Your task to perform on an android device: What's on my calendar today? Image 0: 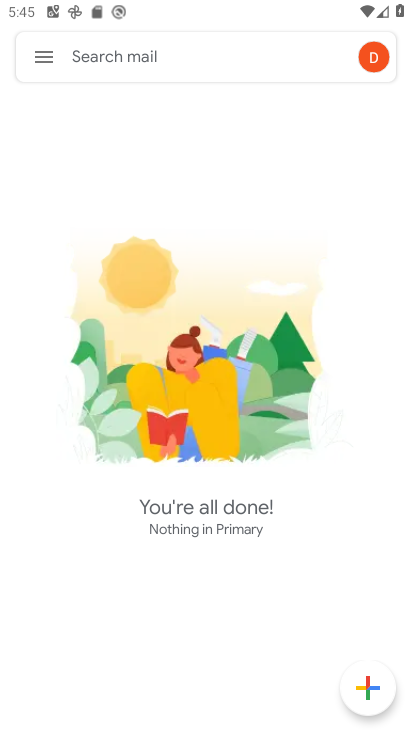
Step 0: press home button
Your task to perform on an android device: What's on my calendar today? Image 1: 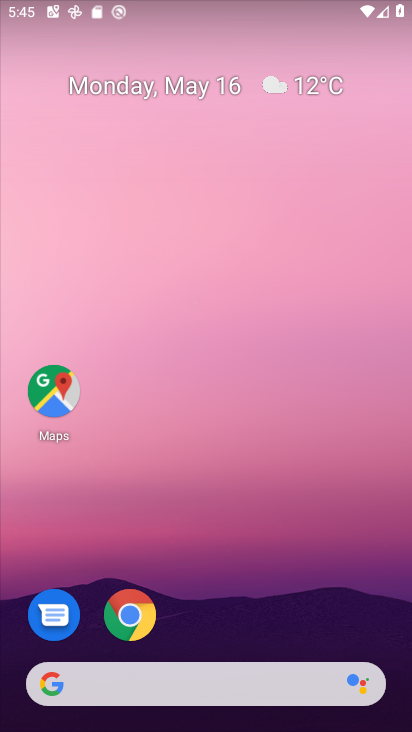
Step 1: drag from (248, 596) to (310, 76)
Your task to perform on an android device: What's on my calendar today? Image 2: 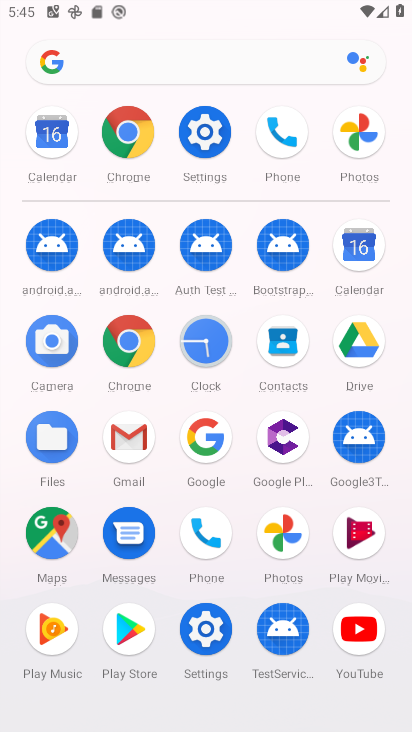
Step 2: click (364, 281)
Your task to perform on an android device: What's on my calendar today? Image 3: 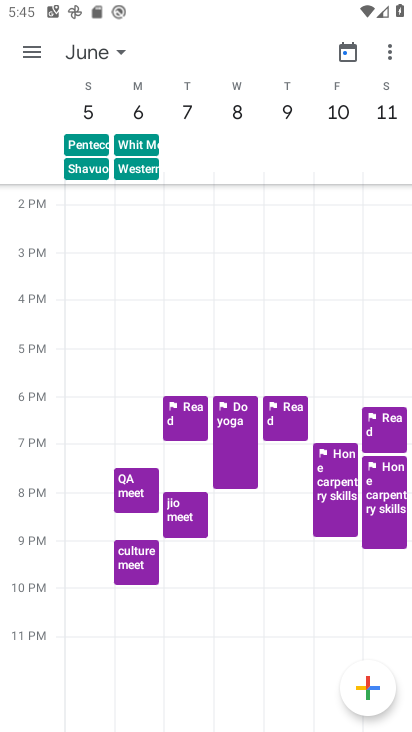
Step 3: click (89, 64)
Your task to perform on an android device: What's on my calendar today? Image 4: 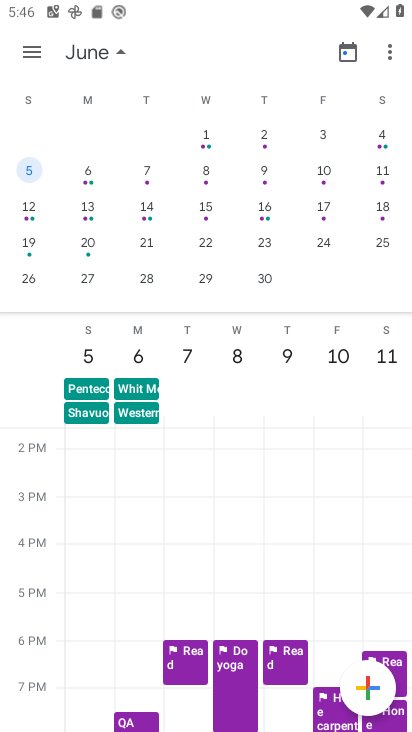
Step 4: click (32, 50)
Your task to perform on an android device: What's on my calendar today? Image 5: 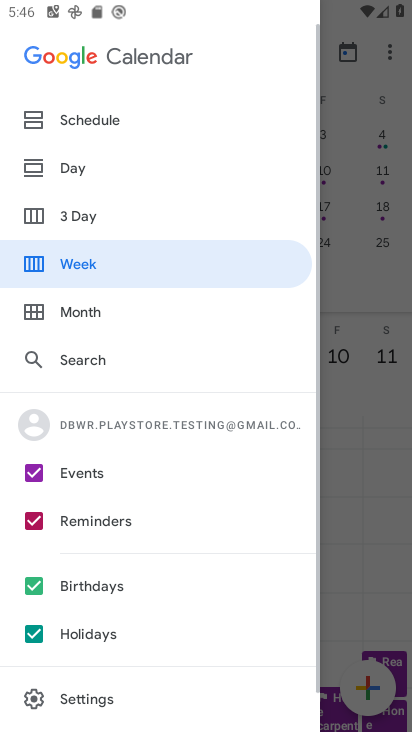
Step 5: click (72, 119)
Your task to perform on an android device: What's on my calendar today? Image 6: 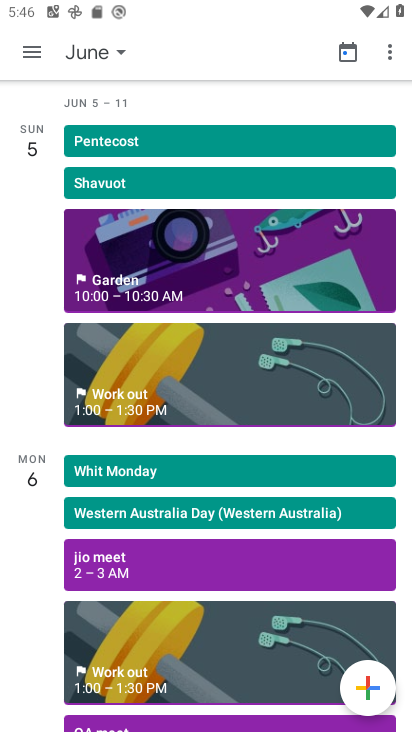
Step 6: click (84, 63)
Your task to perform on an android device: What's on my calendar today? Image 7: 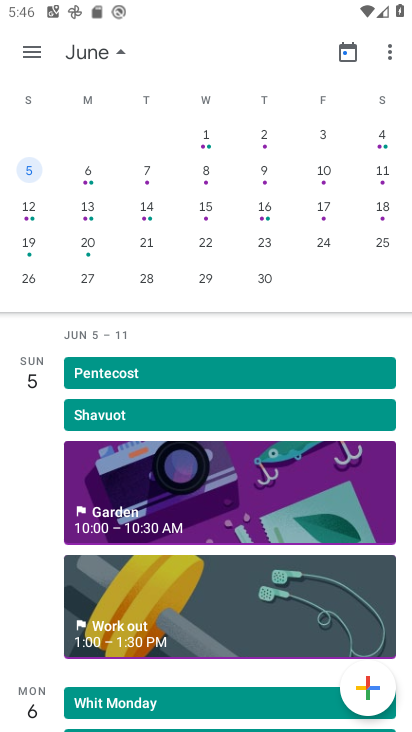
Step 7: drag from (89, 206) to (395, 259)
Your task to perform on an android device: What's on my calendar today? Image 8: 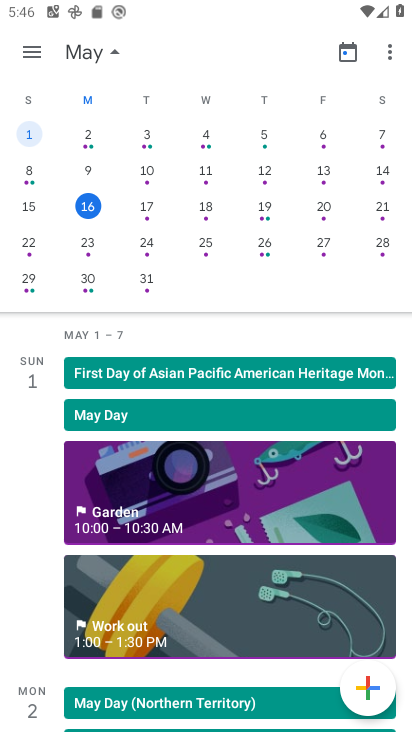
Step 8: click (87, 209)
Your task to perform on an android device: What's on my calendar today? Image 9: 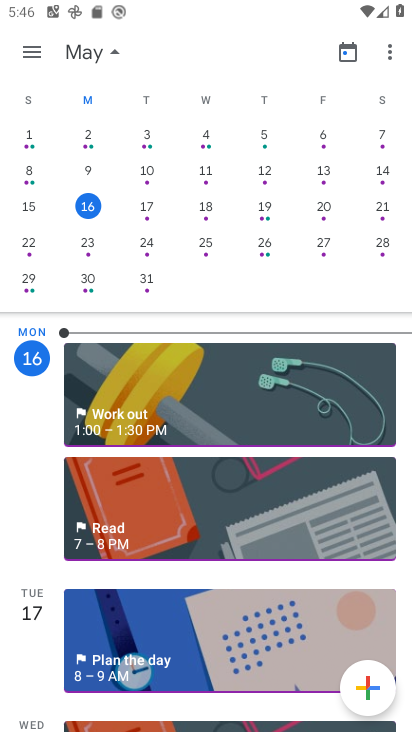
Step 9: click (87, 209)
Your task to perform on an android device: What's on my calendar today? Image 10: 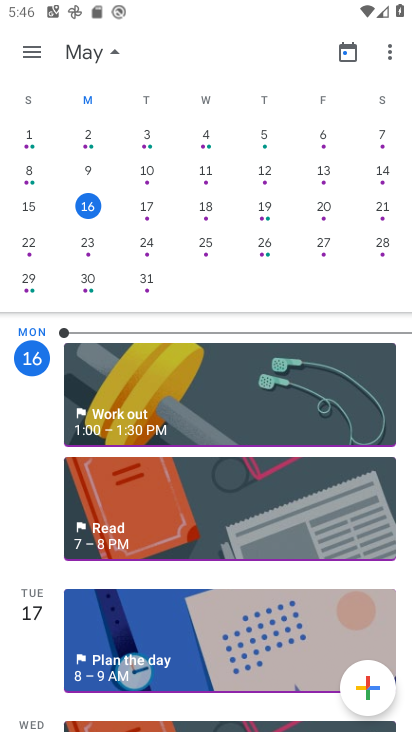
Step 10: task complete